Your task to perform on an android device: turn on notifications settings in the gmail app Image 0: 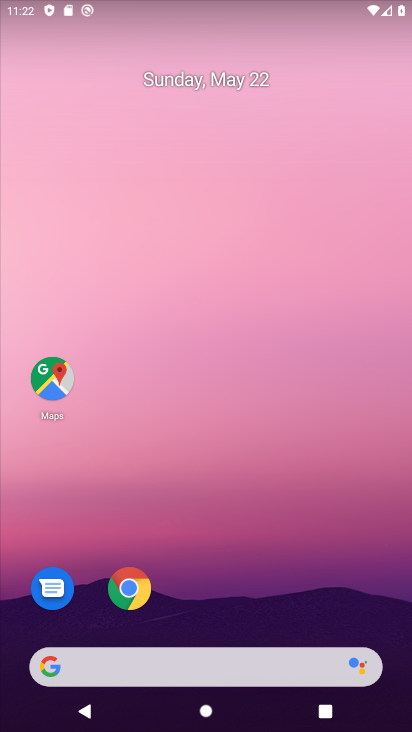
Step 0: drag from (233, 686) to (234, 260)
Your task to perform on an android device: turn on notifications settings in the gmail app Image 1: 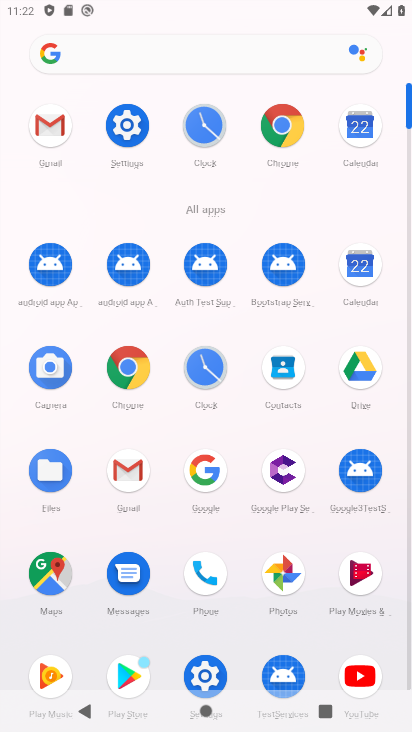
Step 1: click (44, 122)
Your task to perform on an android device: turn on notifications settings in the gmail app Image 2: 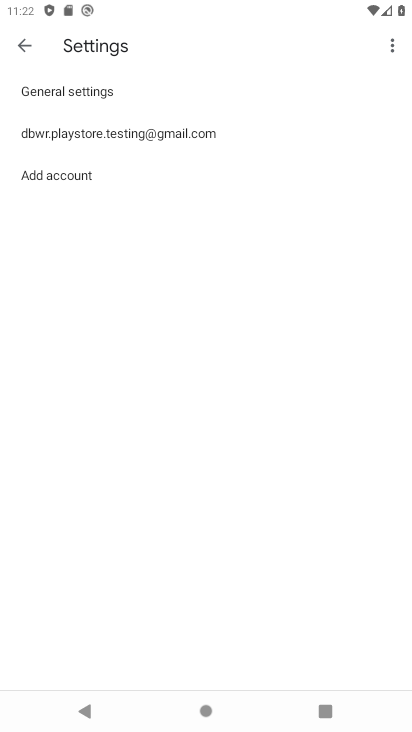
Step 2: click (74, 133)
Your task to perform on an android device: turn on notifications settings in the gmail app Image 3: 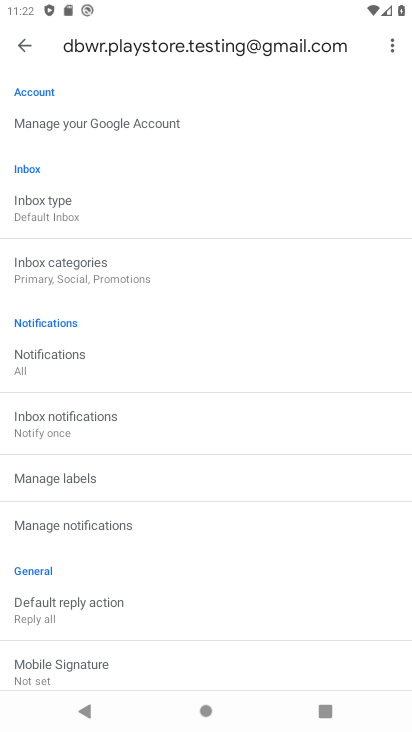
Step 3: click (57, 362)
Your task to perform on an android device: turn on notifications settings in the gmail app Image 4: 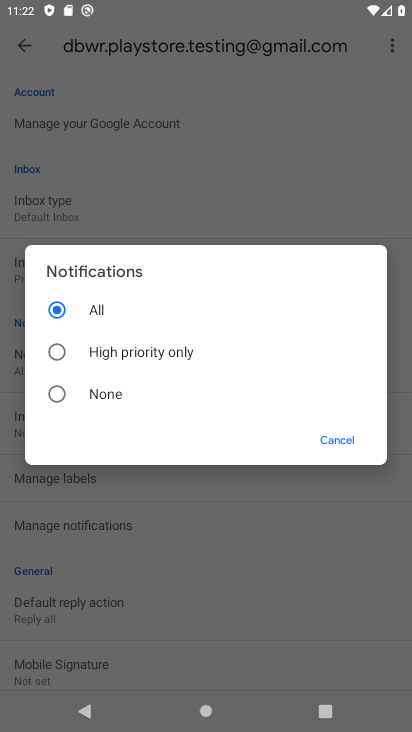
Step 4: task complete